Your task to perform on an android device: search for starred emails in the gmail app Image 0: 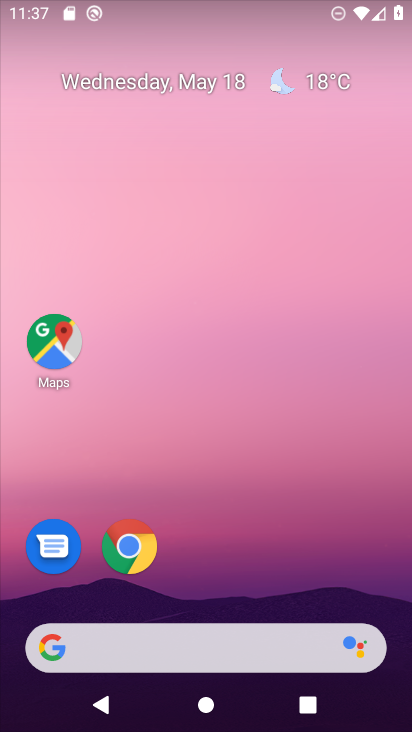
Step 0: drag from (237, 723) to (214, 59)
Your task to perform on an android device: search for starred emails in the gmail app Image 1: 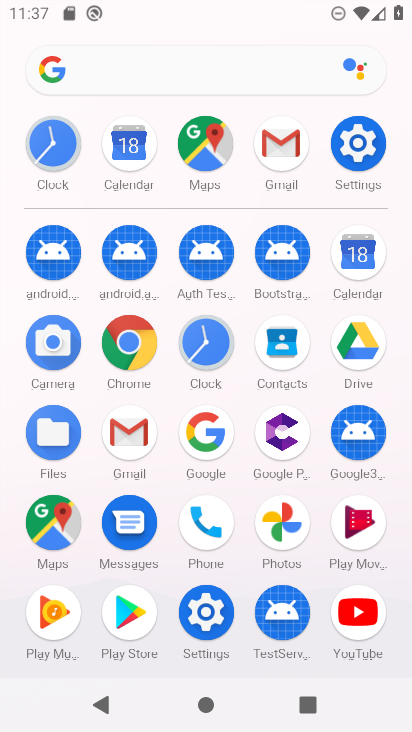
Step 1: click (133, 431)
Your task to perform on an android device: search for starred emails in the gmail app Image 2: 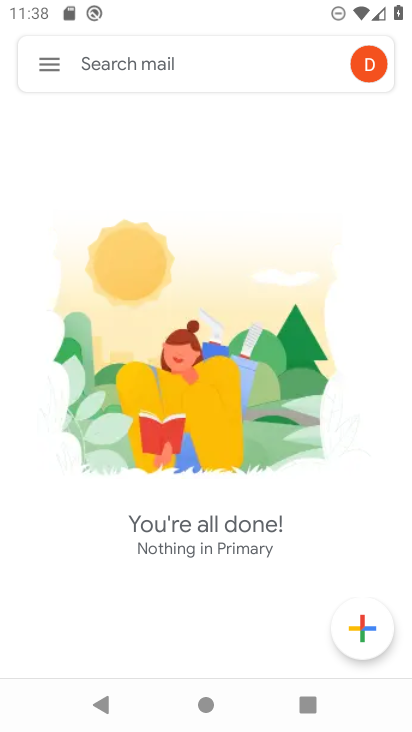
Step 2: click (47, 61)
Your task to perform on an android device: search for starred emails in the gmail app Image 3: 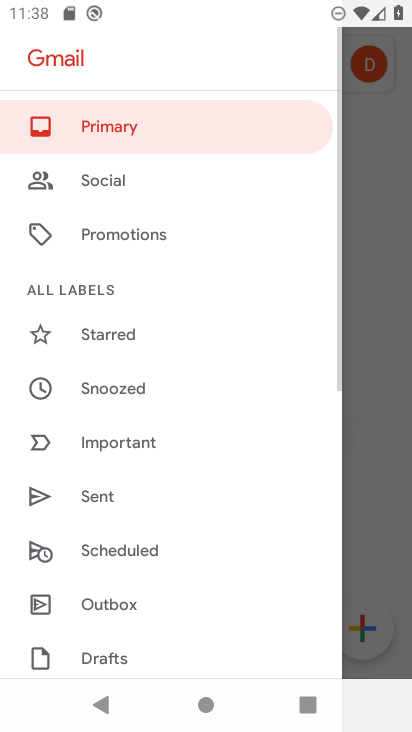
Step 3: drag from (146, 446) to (149, 280)
Your task to perform on an android device: search for starred emails in the gmail app Image 4: 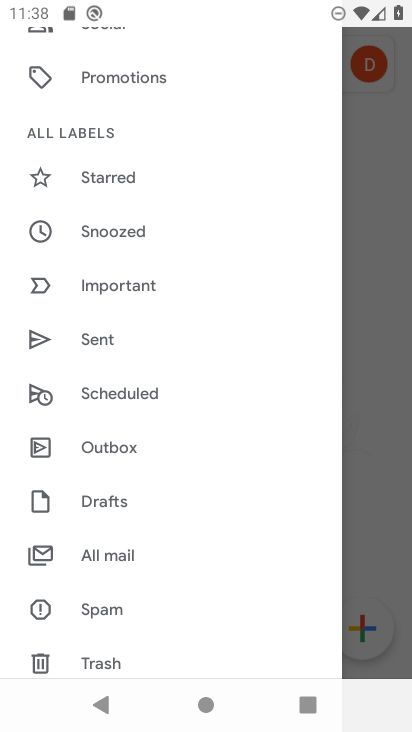
Step 4: click (112, 171)
Your task to perform on an android device: search for starred emails in the gmail app Image 5: 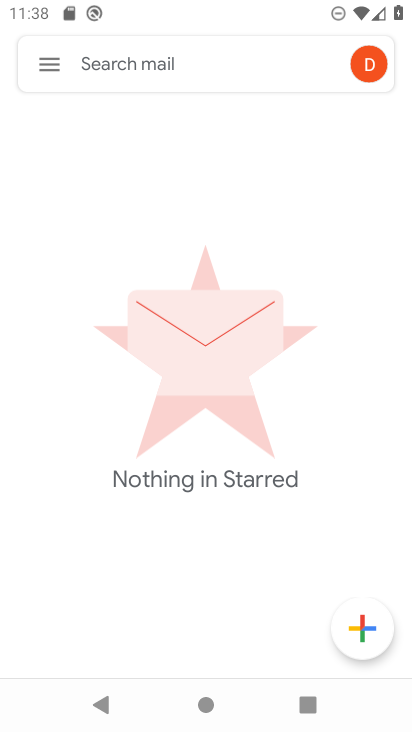
Step 5: task complete